Your task to perform on an android device: Open calendar and show me the second week of next month Image 0: 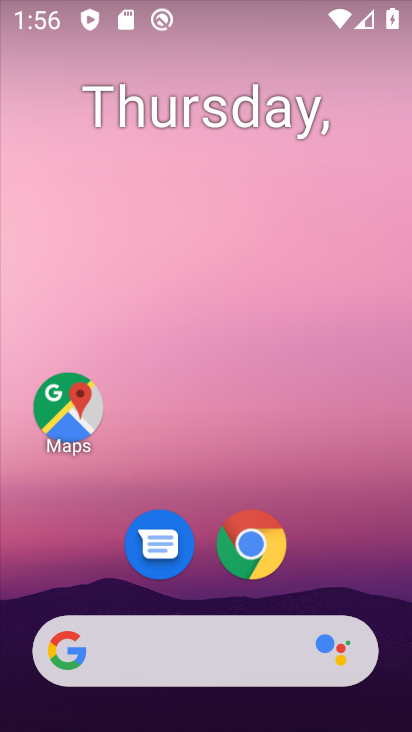
Step 0: drag from (347, 534) to (264, 147)
Your task to perform on an android device: Open calendar and show me the second week of next month Image 1: 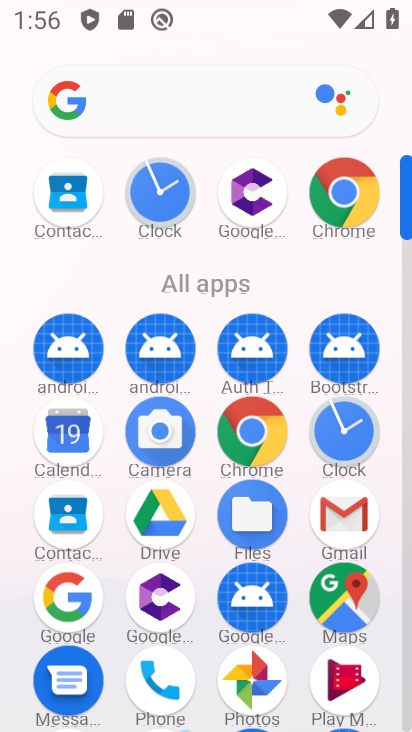
Step 1: click (61, 445)
Your task to perform on an android device: Open calendar and show me the second week of next month Image 2: 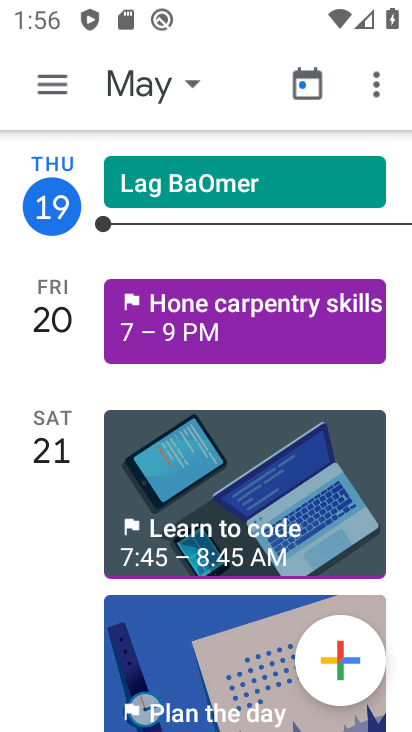
Step 2: click (148, 93)
Your task to perform on an android device: Open calendar and show me the second week of next month Image 3: 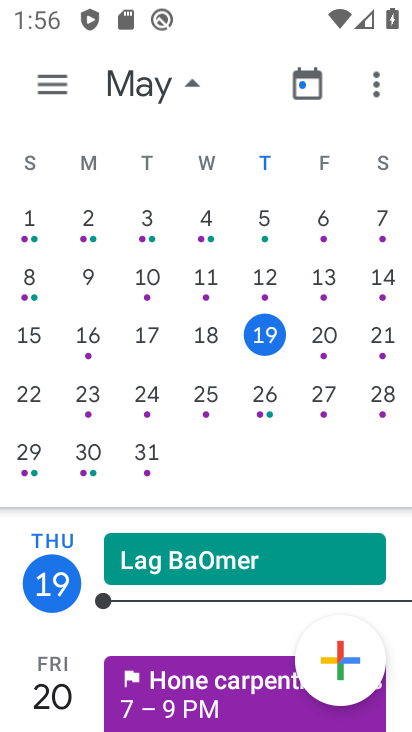
Step 3: drag from (340, 319) to (0, 345)
Your task to perform on an android device: Open calendar and show me the second week of next month Image 4: 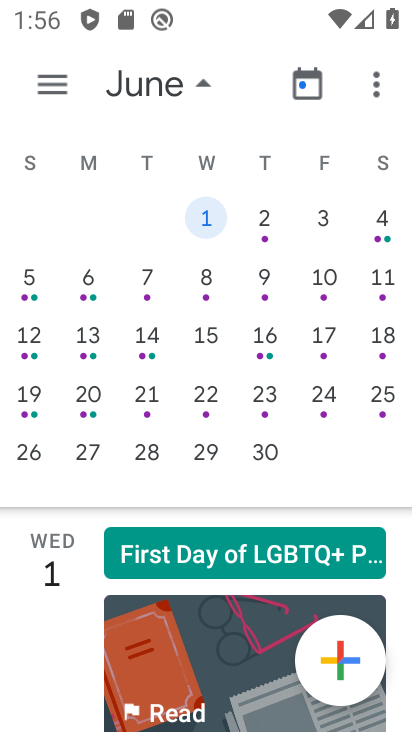
Step 4: click (25, 293)
Your task to perform on an android device: Open calendar and show me the second week of next month Image 5: 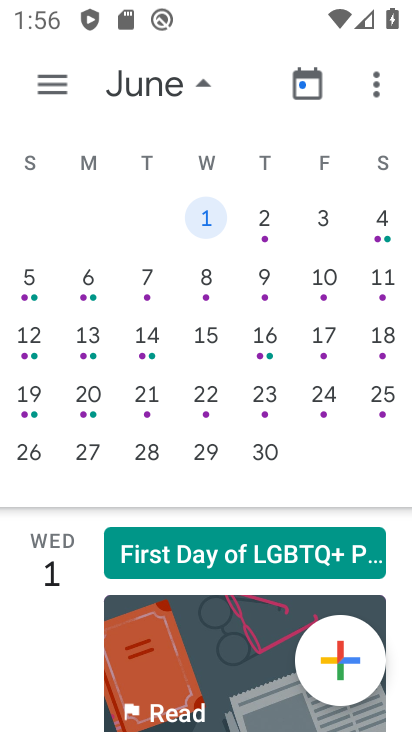
Step 5: click (56, 94)
Your task to perform on an android device: Open calendar and show me the second week of next month Image 6: 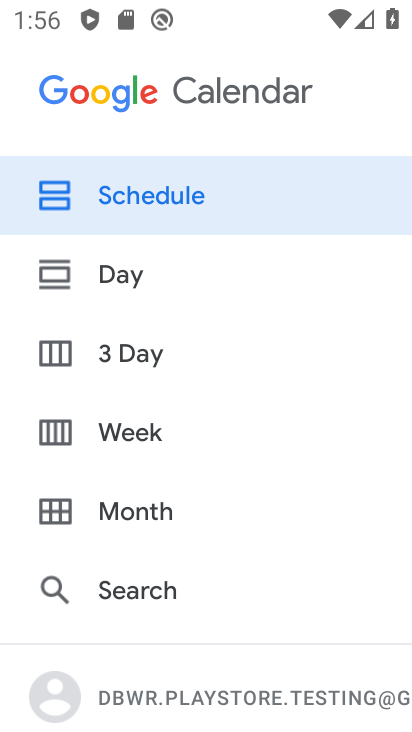
Step 6: click (94, 426)
Your task to perform on an android device: Open calendar and show me the second week of next month Image 7: 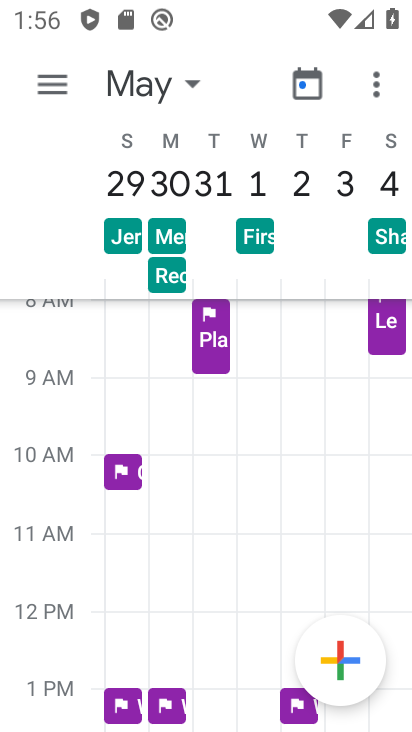
Step 7: task complete